Your task to perform on an android device: toggle show notifications on the lock screen Image 0: 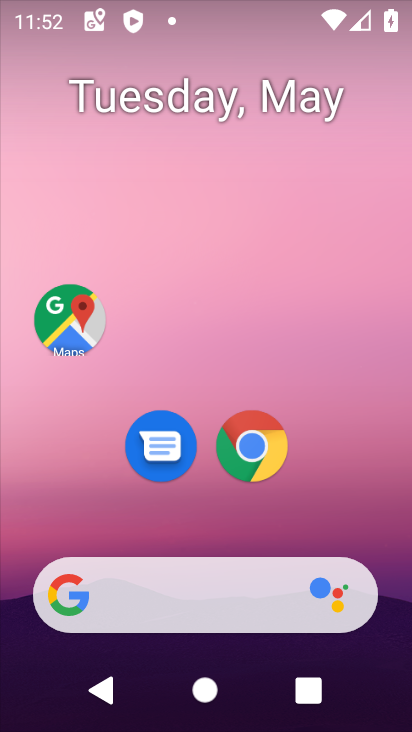
Step 0: drag from (232, 720) to (238, 195)
Your task to perform on an android device: toggle show notifications on the lock screen Image 1: 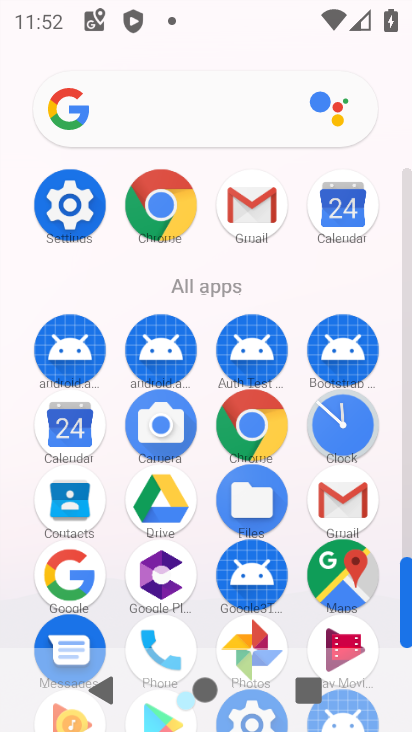
Step 1: click (66, 202)
Your task to perform on an android device: toggle show notifications on the lock screen Image 2: 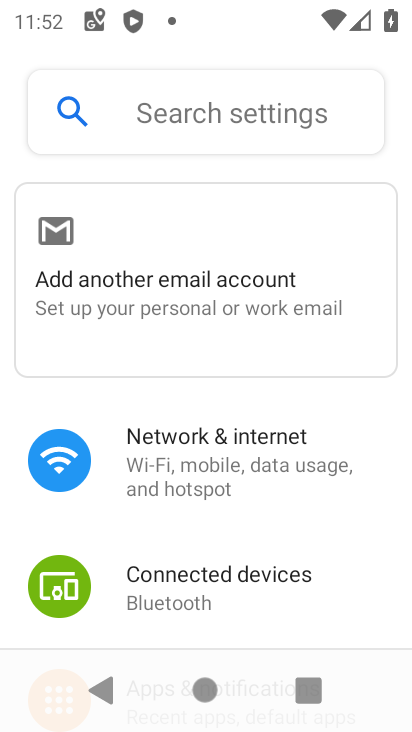
Step 2: drag from (235, 614) to (222, 298)
Your task to perform on an android device: toggle show notifications on the lock screen Image 3: 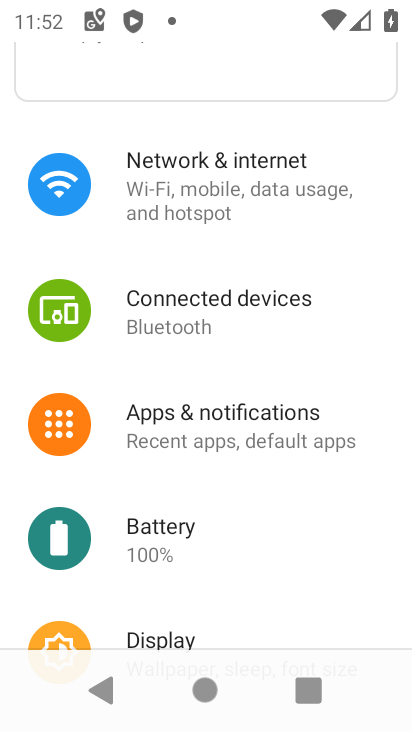
Step 3: click (206, 428)
Your task to perform on an android device: toggle show notifications on the lock screen Image 4: 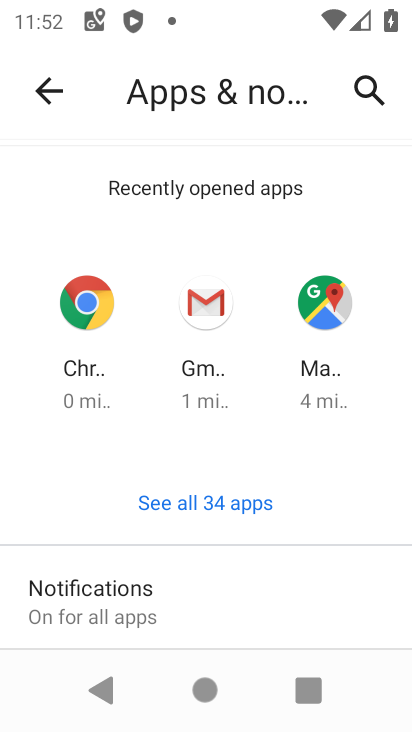
Step 4: click (78, 603)
Your task to perform on an android device: toggle show notifications on the lock screen Image 5: 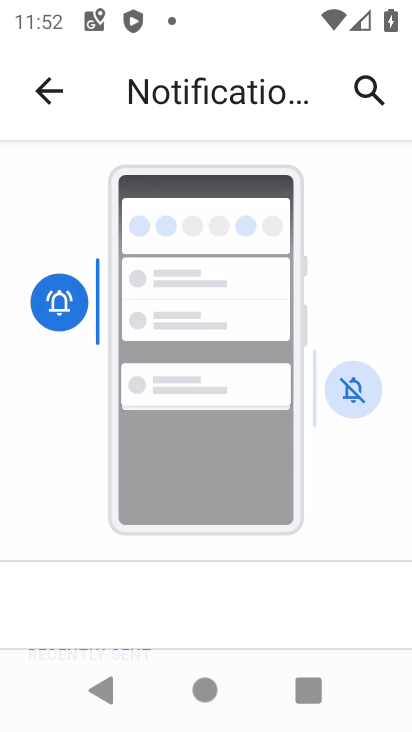
Step 5: drag from (209, 611) to (213, 224)
Your task to perform on an android device: toggle show notifications on the lock screen Image 6: 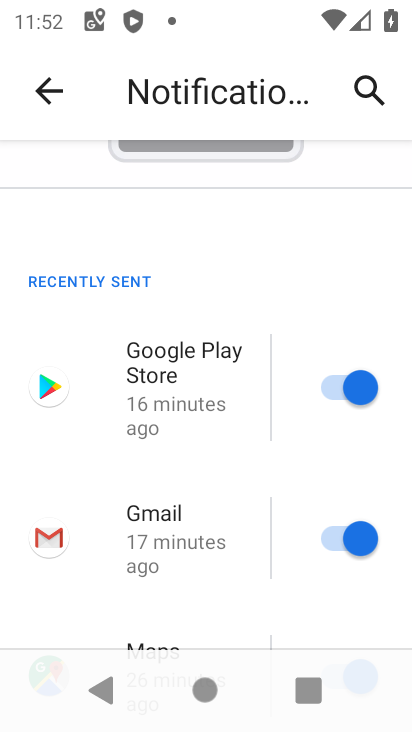
Step 6: drag from (184, 615) to (197, 266)
Your task to perform on an android device: toggle show notifications on the lock screen Image 7: 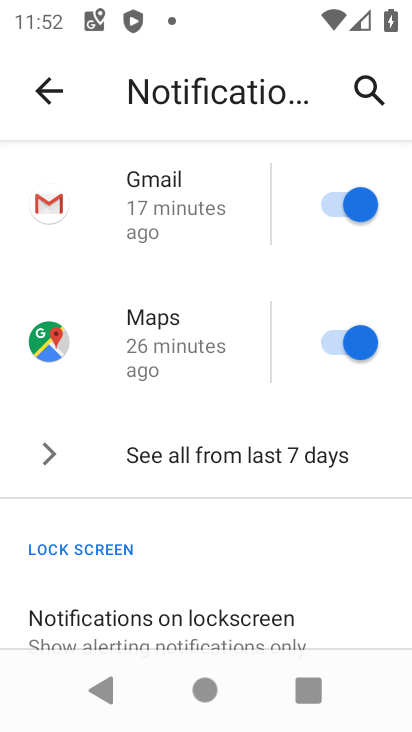
Step 7: drag from (148, 591) to (157, 324)
Your task to perform on an android device: toggle show notifications on the lock screen Image 8: 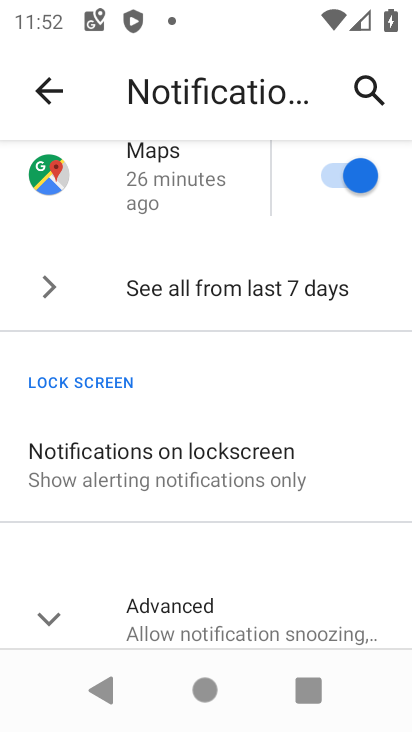
Step 8: click (182, 468)
Your task to perform on an android device: toggle show notifications on the lock screen Image 9: 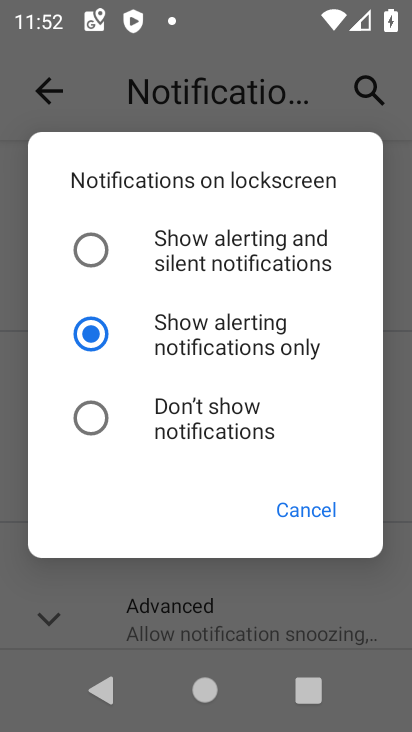
Step 9: click (92, 248)
Your task to perform on an android device: toggle show notifications on the lock screen Image 10: 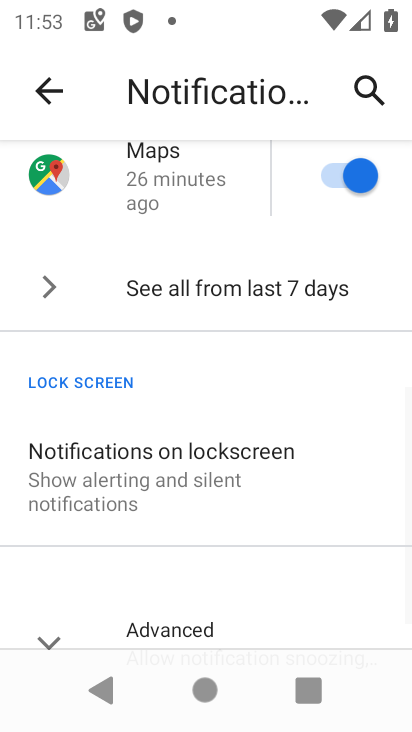
Step 10: task complete